Your task to perform on an android device: turn notification dots on Image 0: 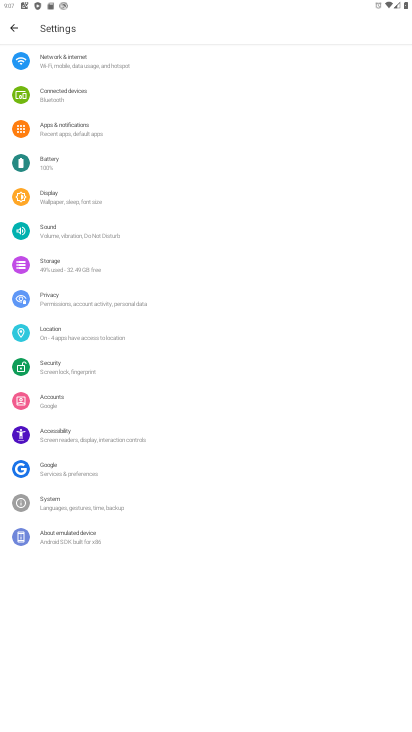
Step 0: click (55, 137)
Your task to perform on an android device: turn notification dots on Image 1: 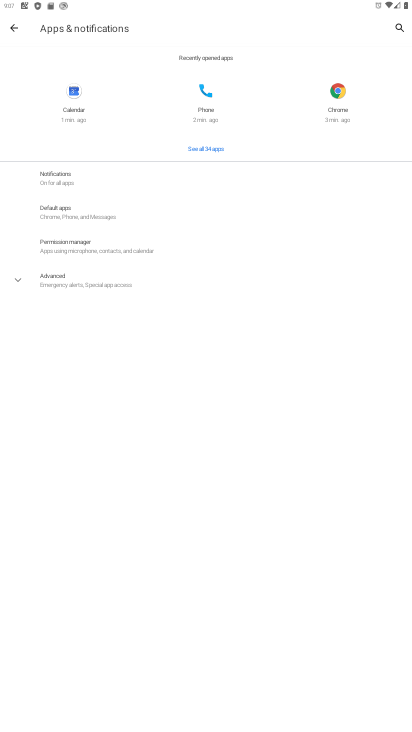
Step 1: click (76, 175)
Your task to perform on an android device: turn notification dots on Image 2: 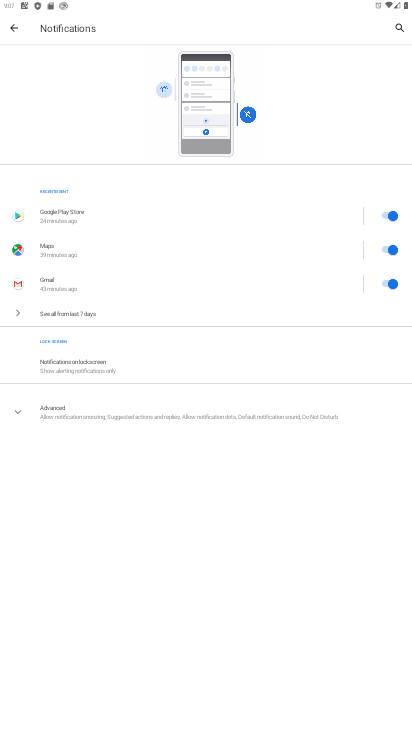
Step 2: click (124, 416)
Your task to perform on an android device: turn notification dots on Image 3: 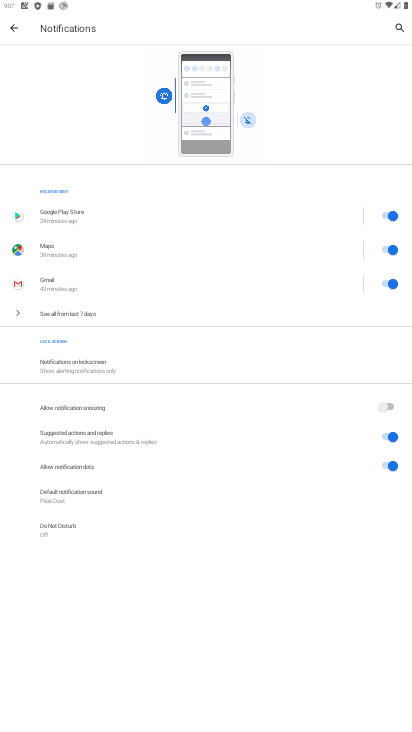
Step 3: task complete